Your task to perform on an android device: What is the news today? Image 0: 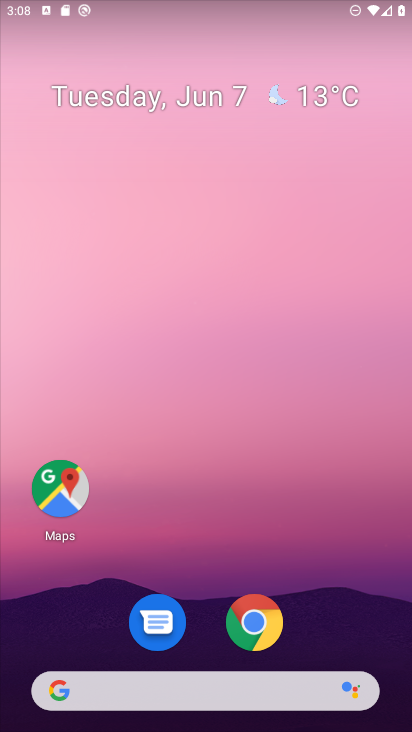
Step 0: click (232, 691)
Your task to perform on an android device: What is the news today? Image 1: 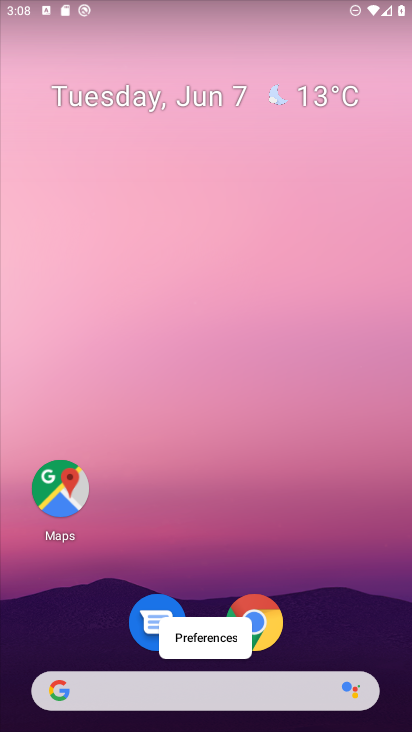
Step 1: click (129, 685)
Your task to perform on an android device: What is the news today? Image 2: 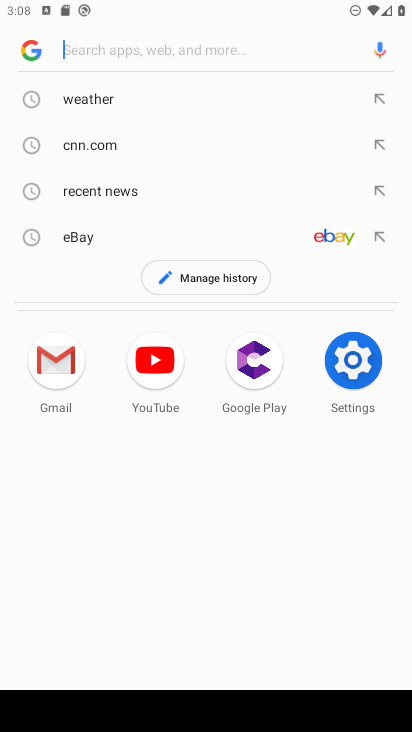
Step 2: click (162, 47)
Your task to perform on an android device: What is the news today? Image 3: 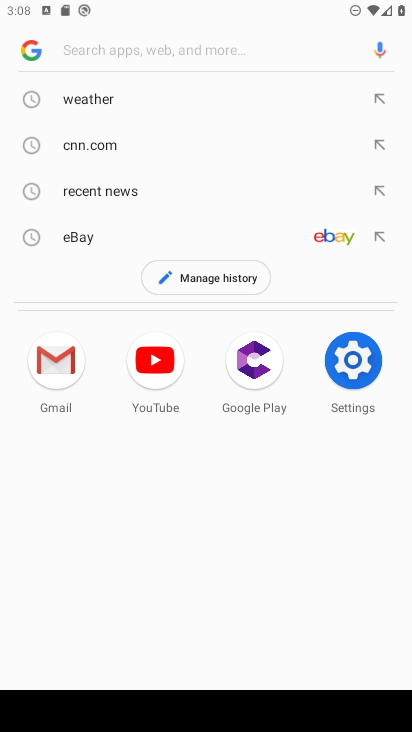
Step 3: type "news today"
Your task to perform on an android device: What is the news today? Image 4: 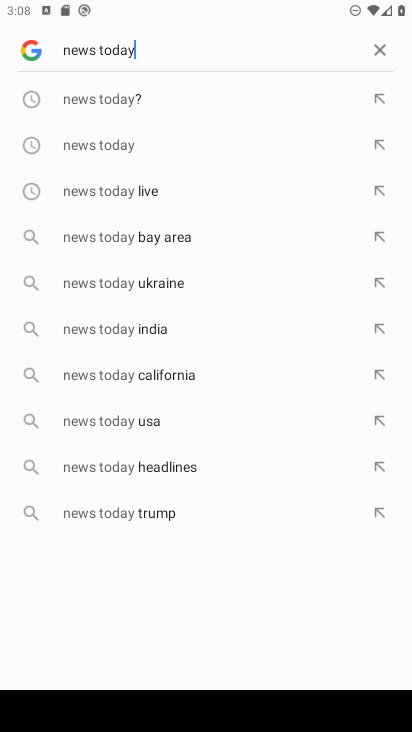
Step 4: click (121, 92)
Your task to perform on an android device: What is the news today? Image 5: 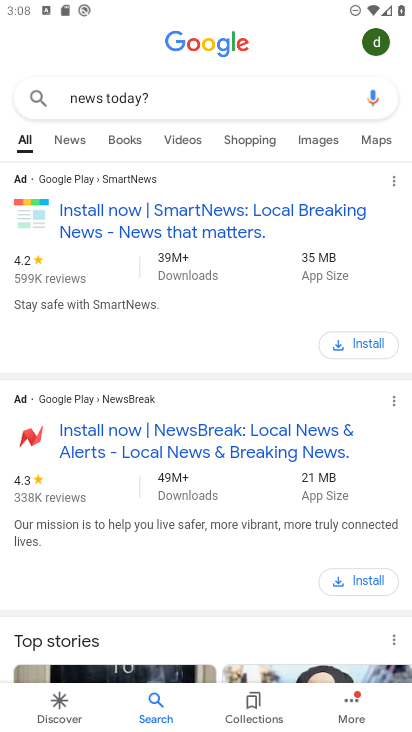
Step 5: click (68, 132)
Your task to perform on an android device: What is the news today? Image 6: 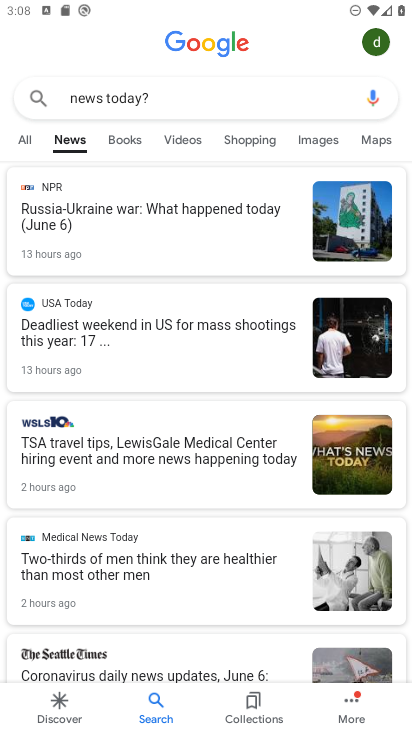
Step 6: task complete